Your task to perform on an android device: Search for seafood restaurants on Google Maps Image 0: 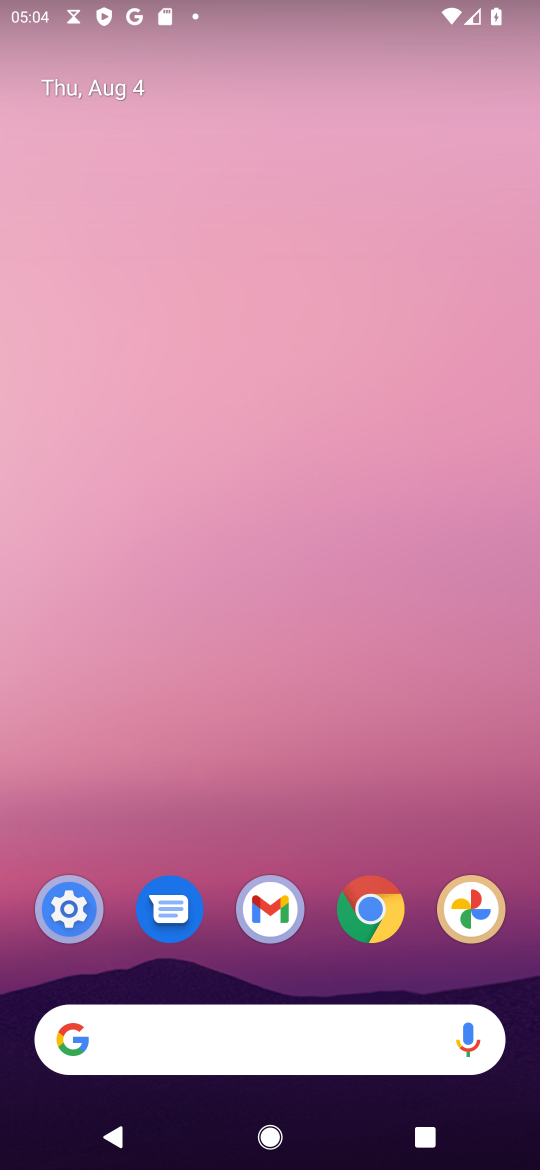
Step 0: press home button
Your task to perform on an android device: Search for seafood restaurants on Google Maps Image 1: 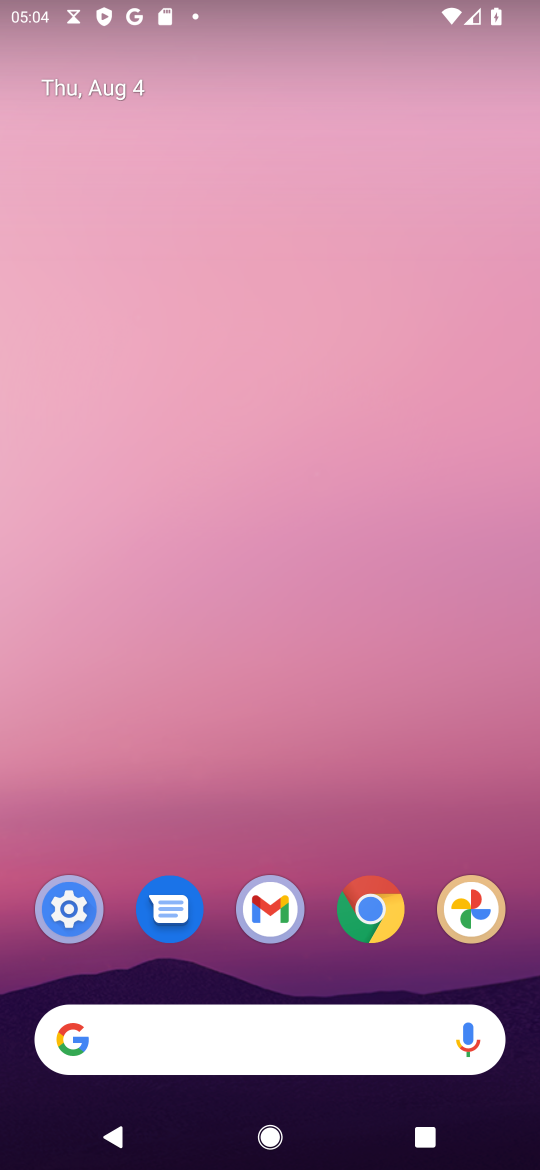
Step 1: drag from (338, 1018) to (459, 86)
Your task to perform on an android device: Search for seafood restaurants on Google Maps Image 2: 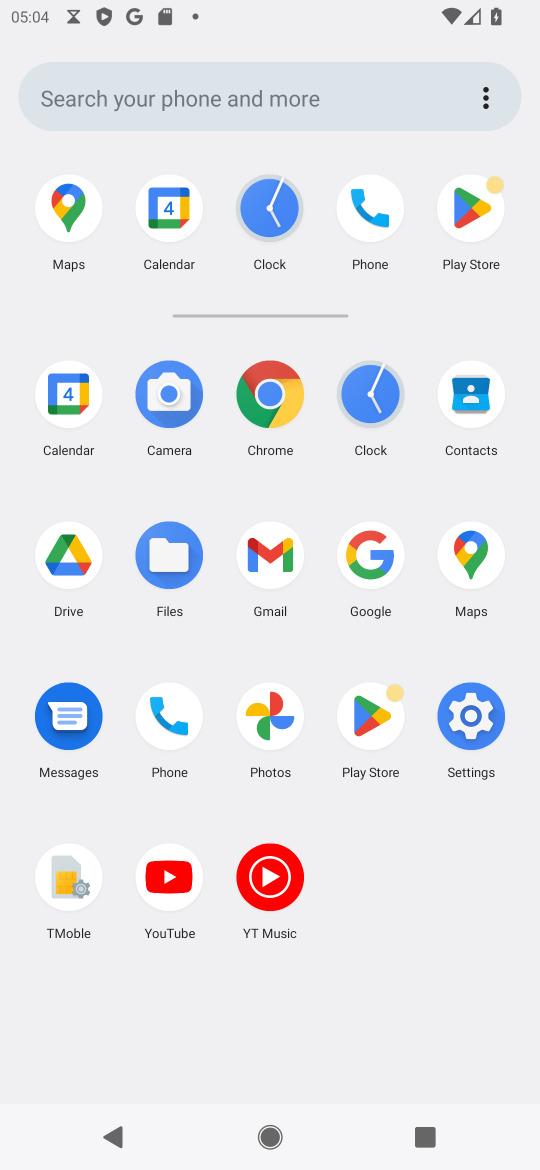
Step 2: click (473, 556)
Your task to perform on an android device: Search for seafood restaurants on Google Maps Image 3: 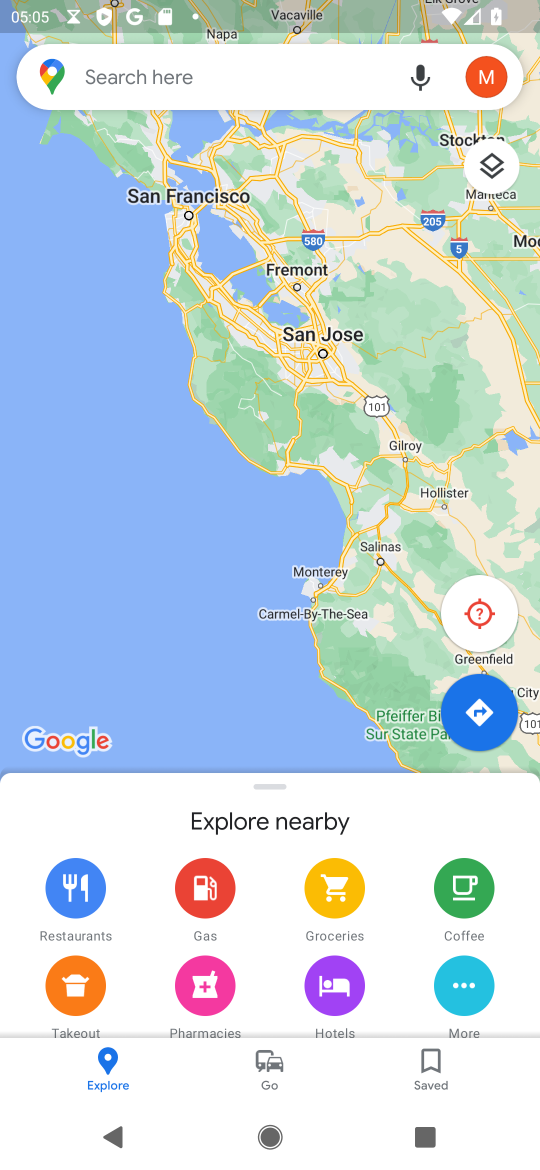
Step 3: click (158, 74)
Your task to perform on an android device: Search for seafood restaurants on Google Maps Image 4: 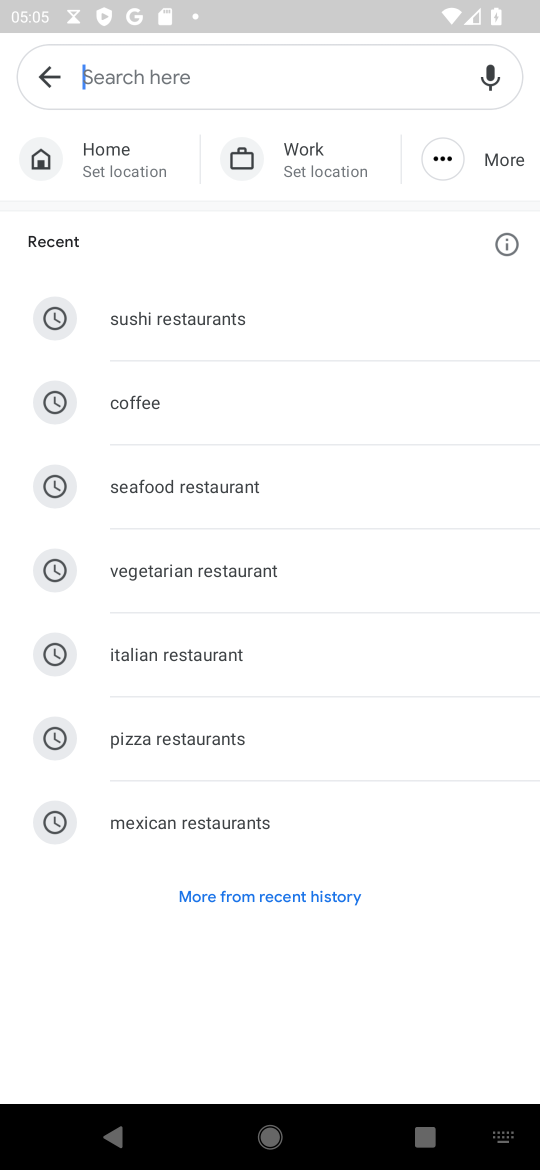
Step 4: click (214, 491)
Your task to perform on an android device: Search for seafood restaurants on Google Maps Image 5: 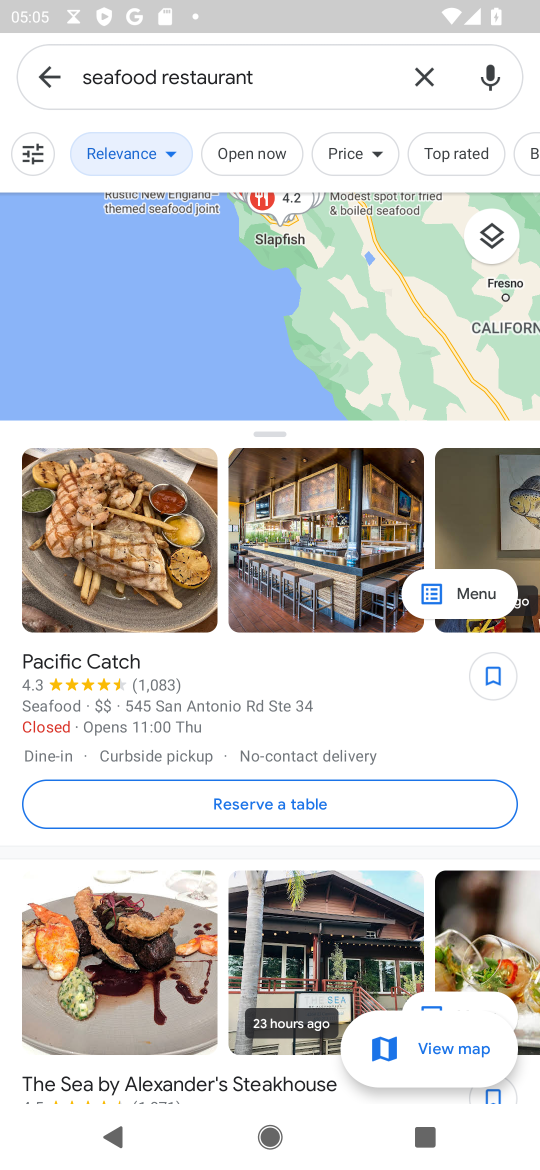
Step 5: task complete